Your task to perform on an android device: delete the emails in spam in the gmail app Image 0: 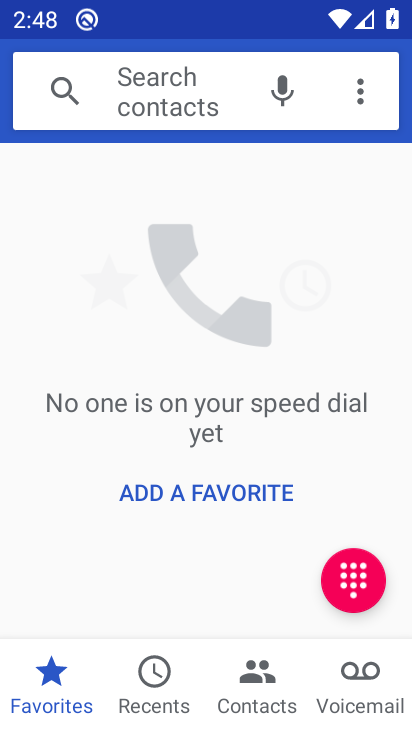
Step 0: press home button
Your task to perform on an android device: delete the emails in spam in the gmail app Image 1: 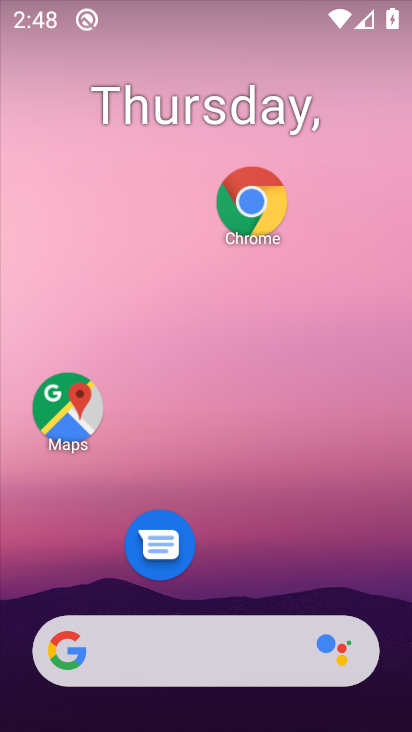
Step 1: drag from (178, 616) to (222, 167)
Your task to perform on an android device: delete the emails in spam in the gmail app Image 2: 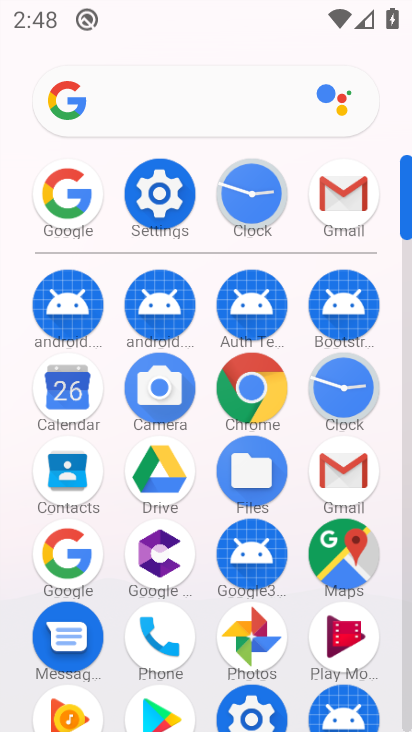
Step 2: click (336, 466)
Your task to perform on an android device: delete the emails in spam in the gmail app Image 3: 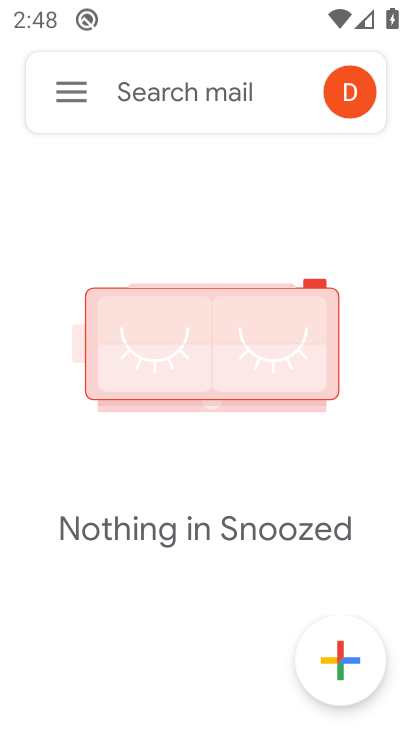
Step 3: click (74, 84)
Your task to perform on an android device: delete the emails in spam in the gmail app Image 4: 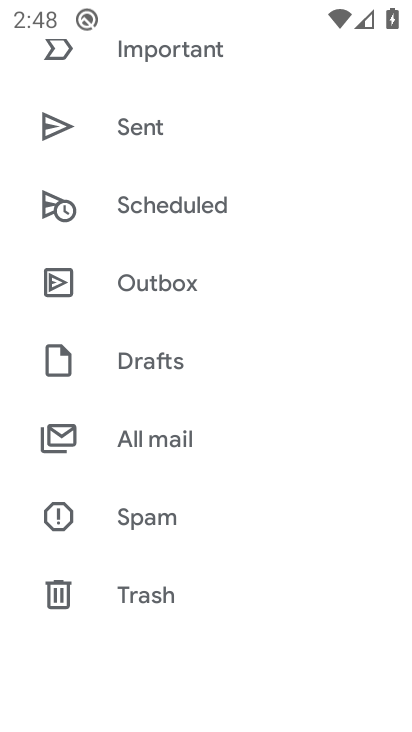
Step 4: click (149, 513)
Your task to perform on an android device: delete the emails in spam in the gmail app Image 5: 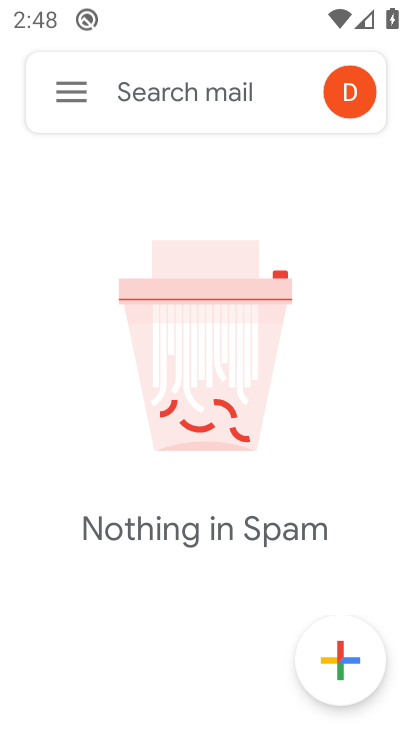
Step 5: task complete